Your task to perform on an android device: Toggle the flashlight Image 0: 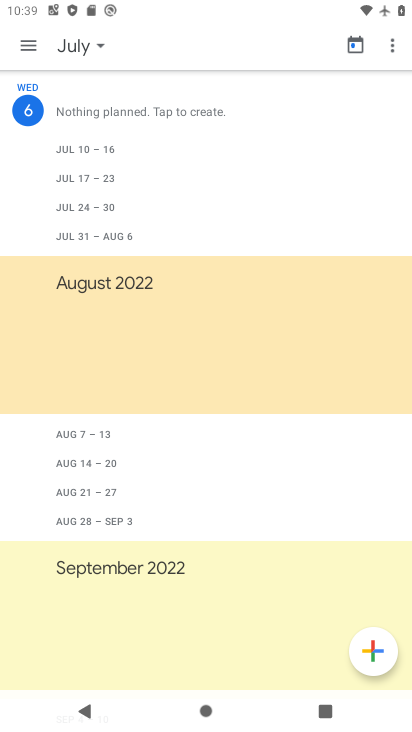
Step 0: press home button
Your task to perform on an android device: Toggle the flashlight Image 1: 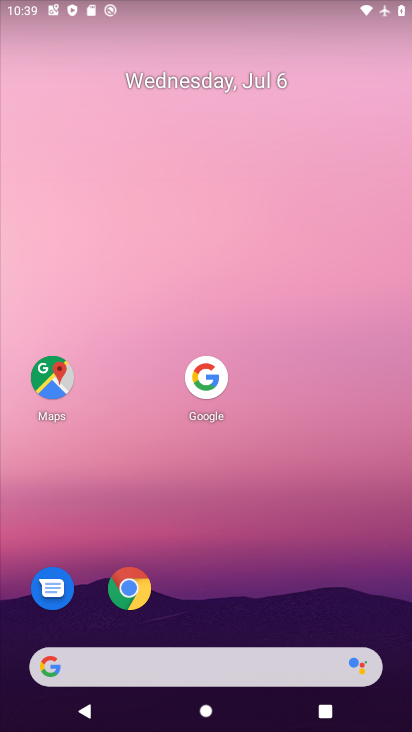
Step 1: task complete